Your task to perform on an android device: turn off sleep mode Image 0: 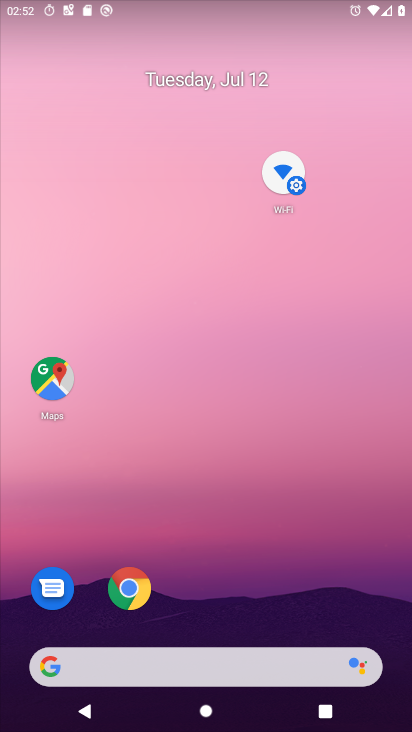
Step 0: drag from (193, 610) to (196, 169)
Your task to perform on an android device: turn off sleep mode Image 1: 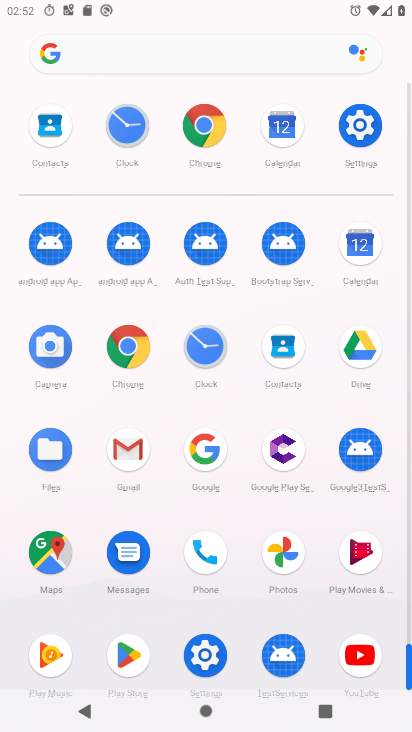
Step 1: click (213, 649)
Your task to perform on an android device: turn off sleep mode Image 2: 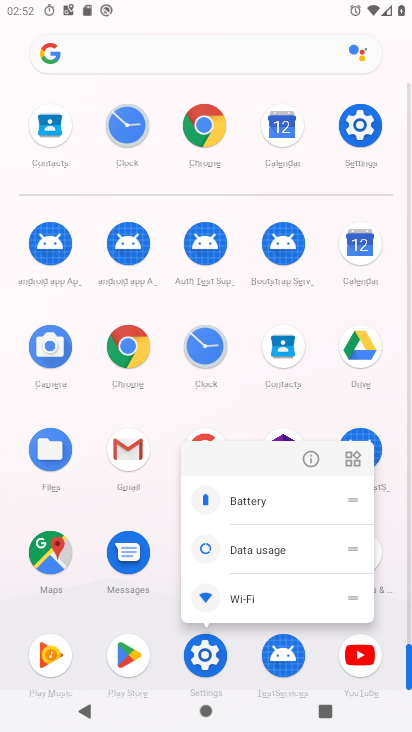
Step 2: click (318, 449)
Your task to perform on an android device: turn off sleep mode Image 3: 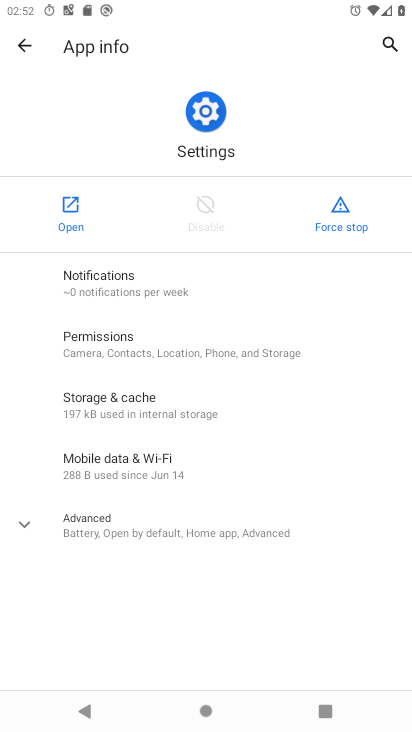
Step 3: click (69, 217)
Your task to perform on an android device: turn off sleep mode Image 4: 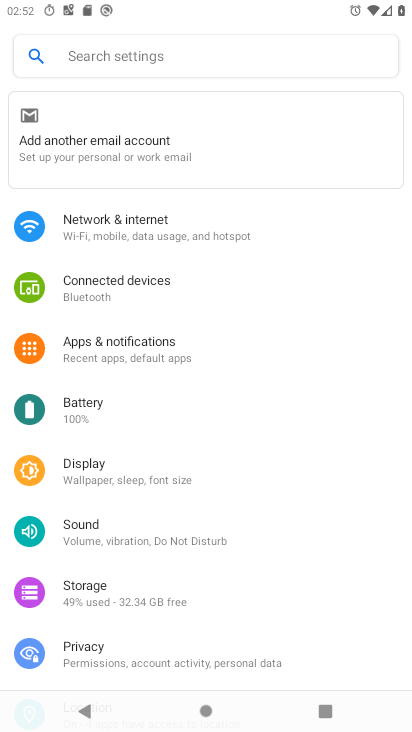
Step 4: click (122, 464)
Your task to perform on an android device: turn off sleep mode Image 5: 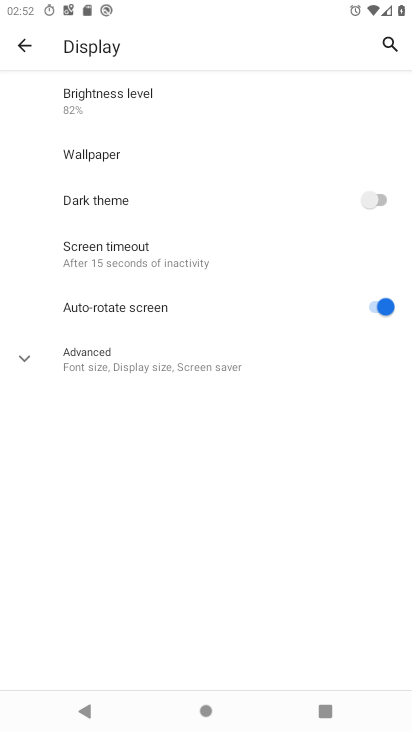
Step 5: click (160, 257)
Your task to perform on an android device: turn off sleep mode Image 6: 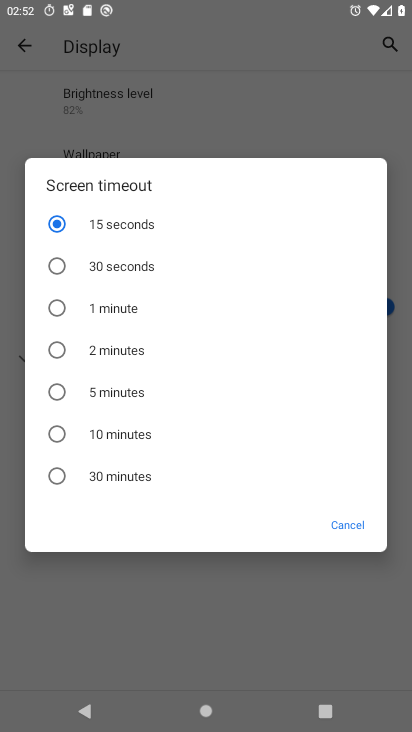
Step 6: task complete